Your task to perform on an android device: set default search engine in the chrome app Image 0: 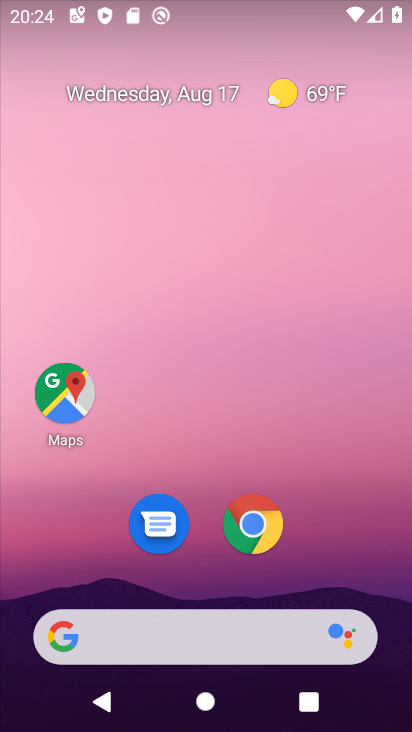
Step 0: click (258, 525)
Your task to perform on an android device: set default search engine in the chrome app Image 1: 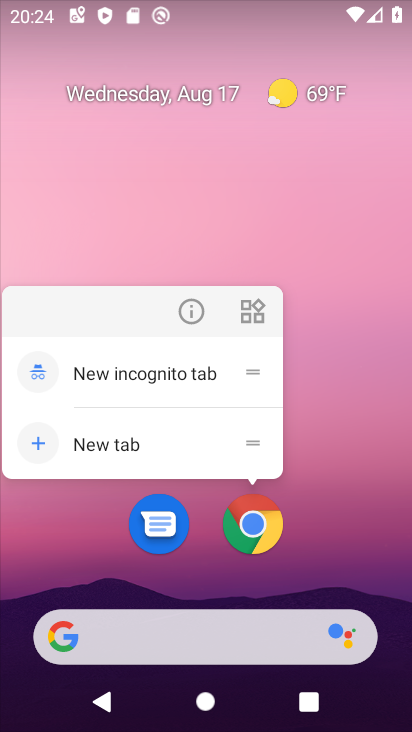
Step 1: click (258, 524)
Your task to perform on an android device: set default search engine in the chrome app Image 2: 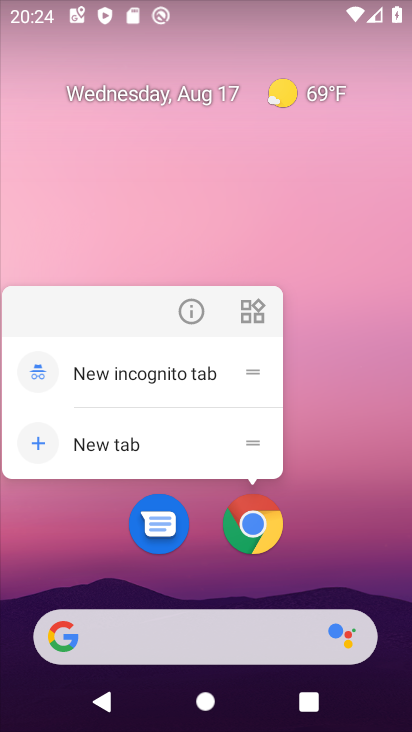
Step 2: click (259, 522)
Your task to perform on an android device: set default search engine in the chrome app Image 3: 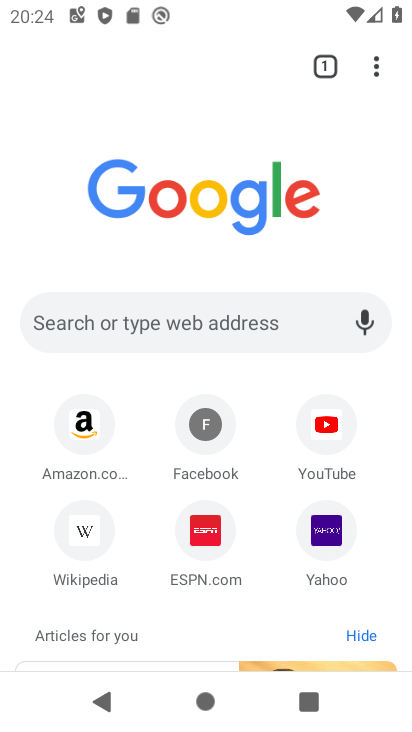
Step 3: click (378, 63)
Your task to perform on an android device: set default search engine in the chrome app Image 4: 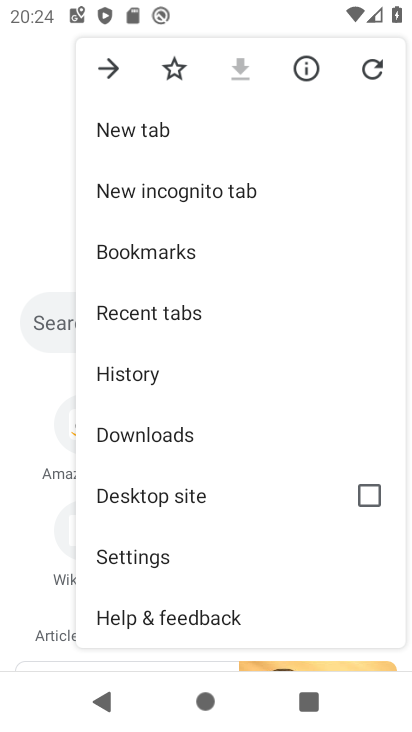
Step 4: click (184, 560)
Your task to perform on an android device: set default search engine in the chrome app Image 5: 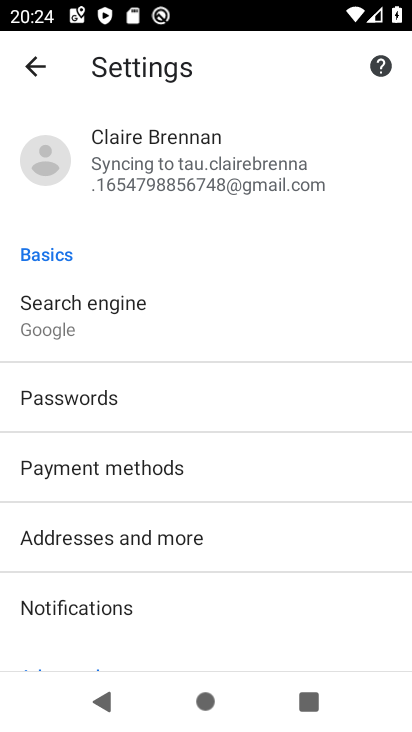
Step 5: click (156, 300)
Your task to perform on an android device: set default search engine in the chrome app Image 6: 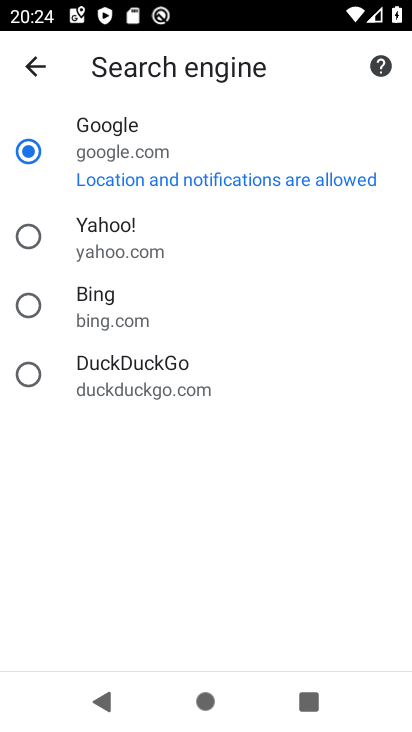
Step 6: task complete